Your task to perform on an android device: empty trash in the gmail app Image 0: 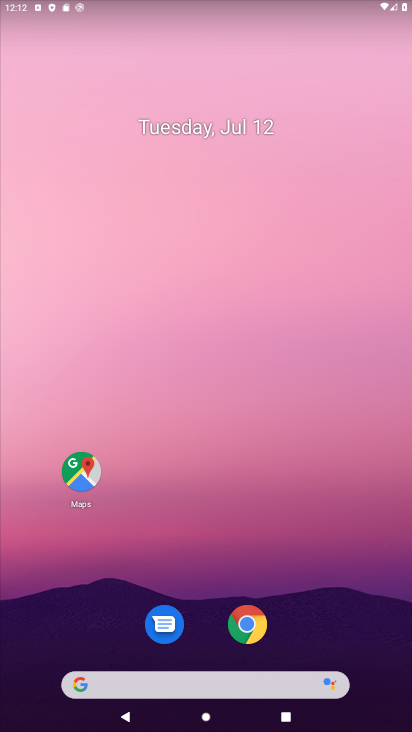
Step 0: drag from (208, 601) to (202, 214)
Your task to perform on an android device: empty trash in the gmail app Image 1: 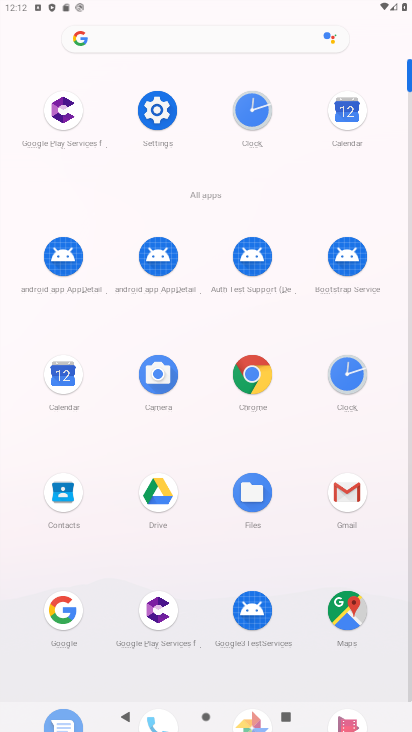
Step 1: click (340, 494)
Your task to perform on an android device: empty trash in the gmail app Image 2: 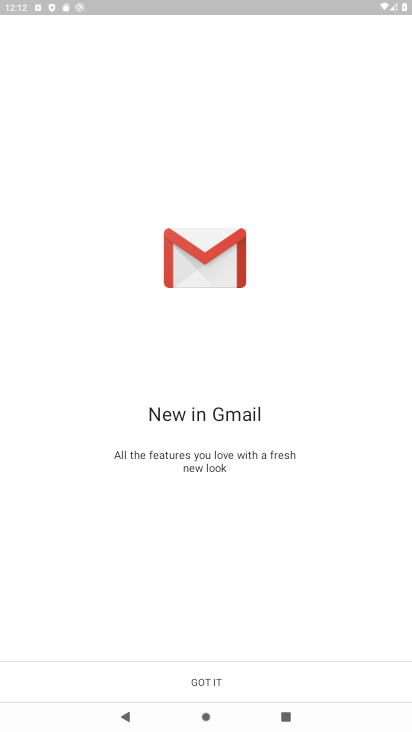
Step 2: click (214, 691)
Your task to perform on an android device: empty trash in the gmail app Image 3: 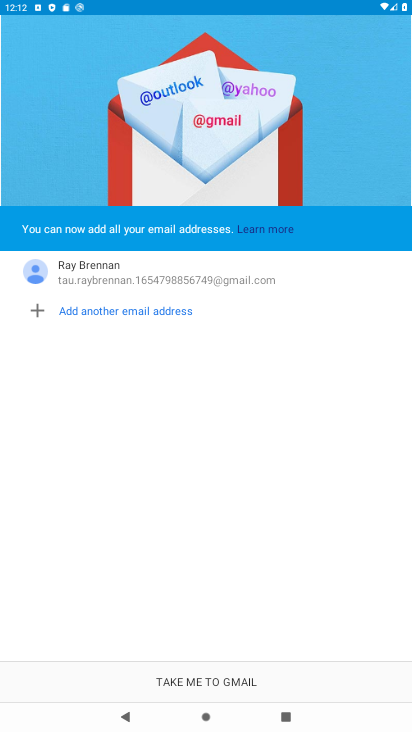
Step 3: click (213, 691)
Your task to perform on an android device: empty trash in the gmail app Image 4: 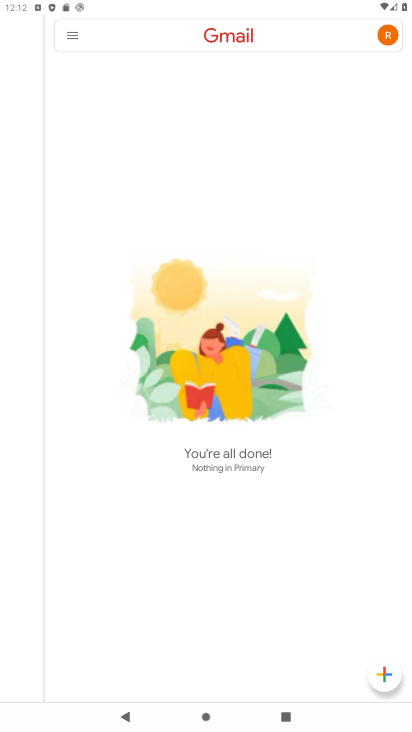
Step 4: click (60, 34)
Your task to perform on an android device: empty trash in the gmail app Image 5: 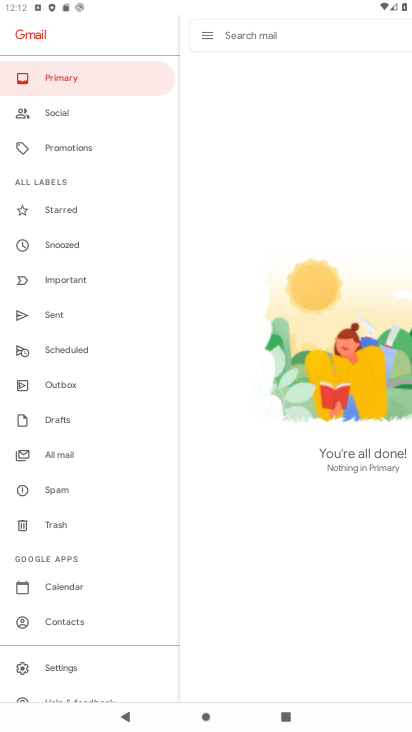
Step 5: click (105, 516)
Your task to perform on an android device: empty trash in the gmail app Image 6: 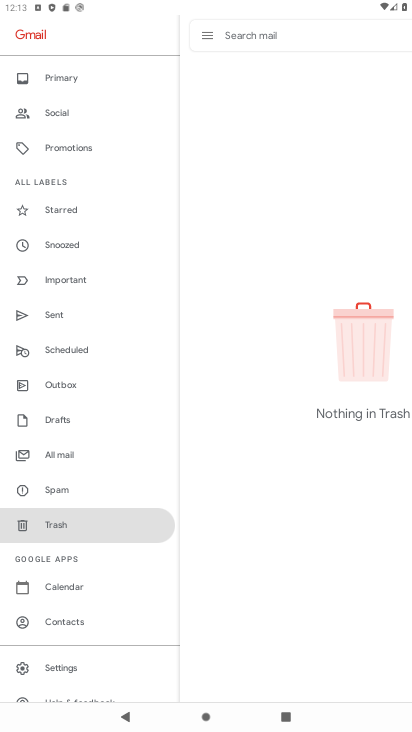
Step 6: task complete